Your task to perform on an android device: Open Chrome and go to the settings page Image 0: 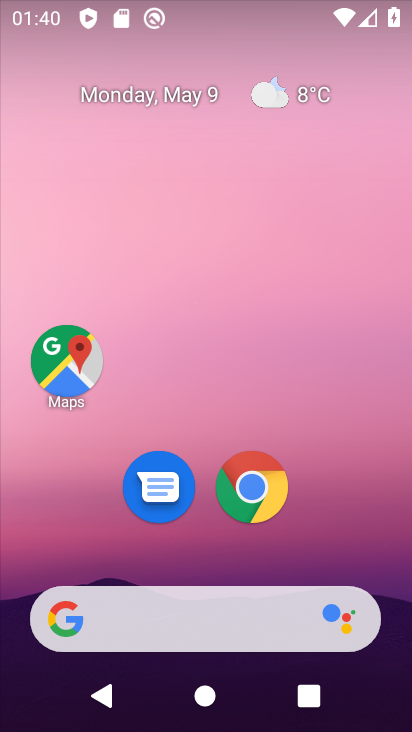
Step 0: click (261, 483)
Your task to perform on an android device: Open Chrome and go to the settings page Image 1: 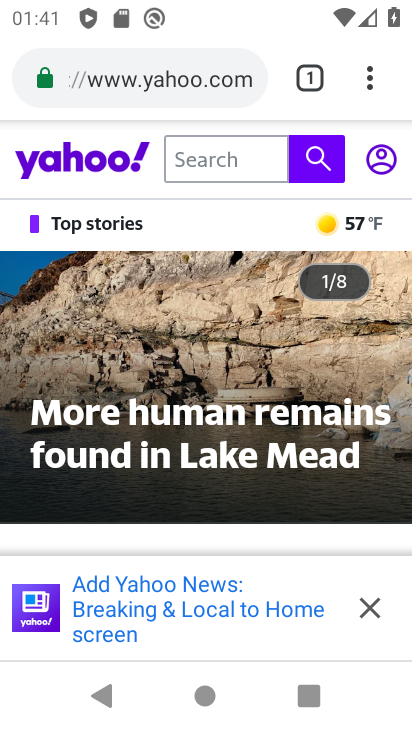
Step 1: click (367, 59)
Your task to perform on an android device: Open Chrome and go to the settings page Image 2: 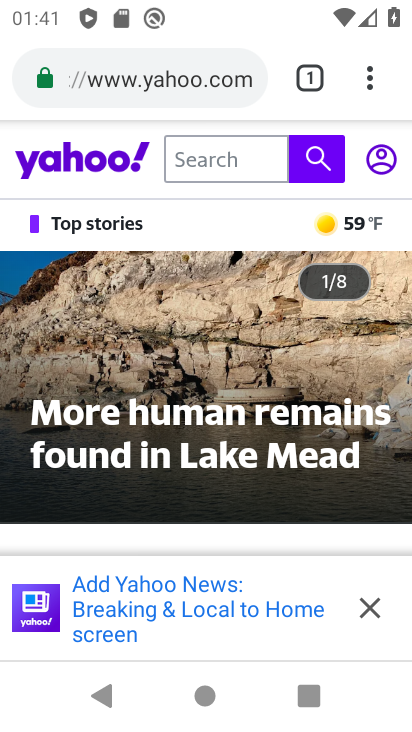
Step 2: click (368, 87)
Your task to perform on an android device: Open Chrome and go to the settings page Image 3: 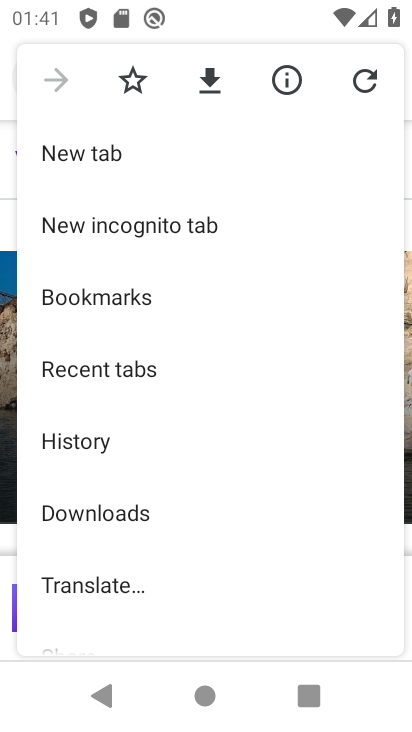
Step 3: drag from (189, 540) to (188, 189)
Your task to perform on an android device: Open Chrome and go to the settings page Image 4: 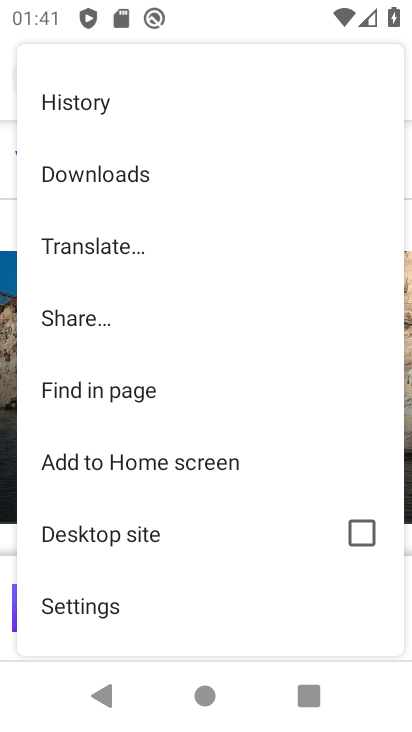
Step 4: click (134, 603)
Your task to perform on an android device: Open Chrome and go to the settings page Image 5: 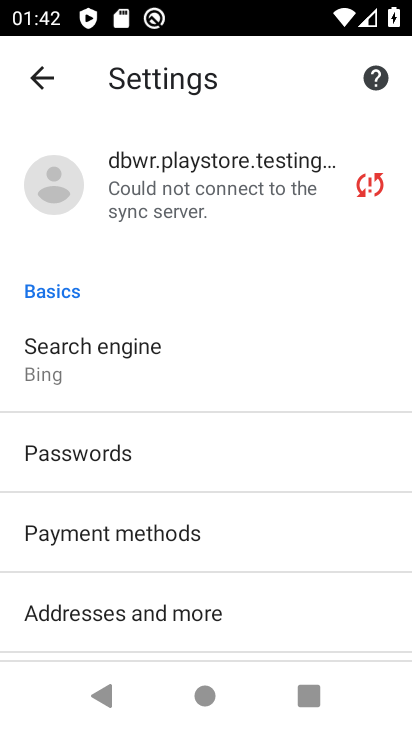
Step 5: task complete